Your task to perform on an android device: Open Google Chrome Image 0: 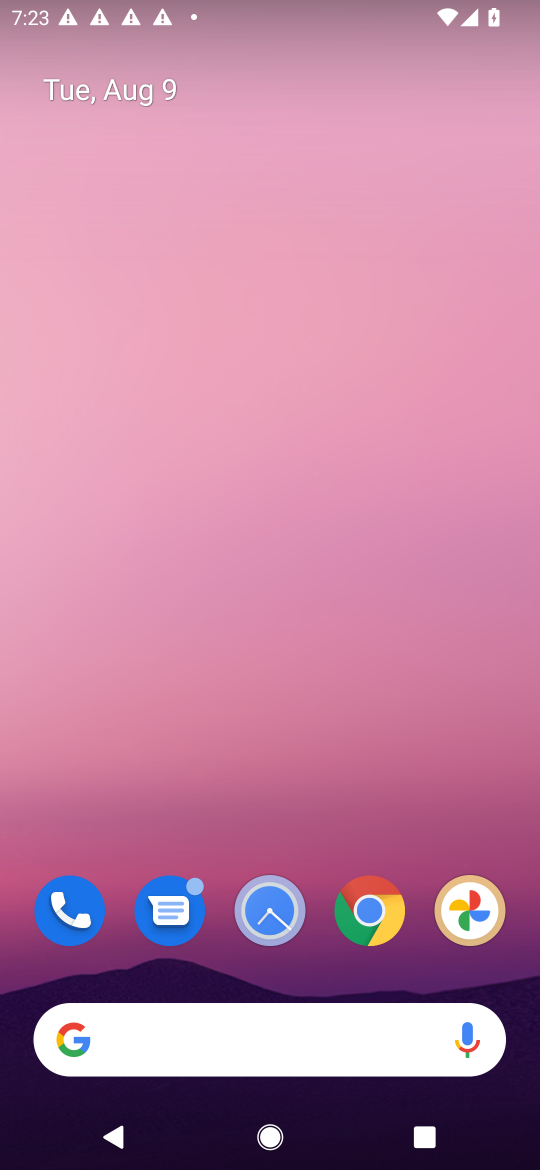
Step 0: drag from (280, 968) to (440, 37)
Your task to perform on an android device: Open Google Chrome Image 1: 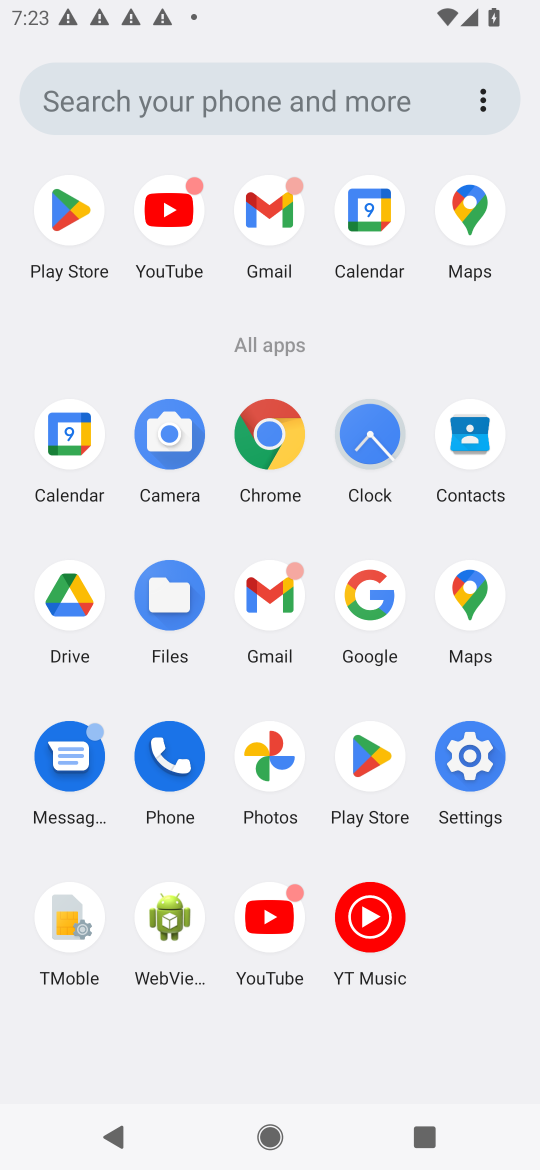
Step 1: click (259, 483)
Your task to perform on an android device: Open Google Chrome Image 2: 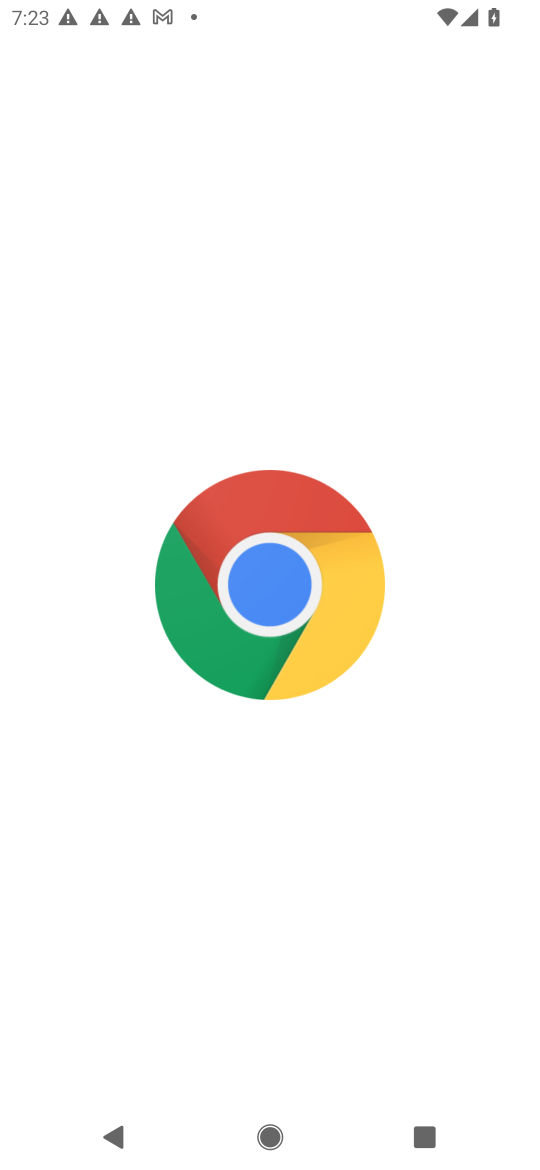
Step 2: task complete